Your task to perform on an android device: Go to Yahoo.com Image 0: 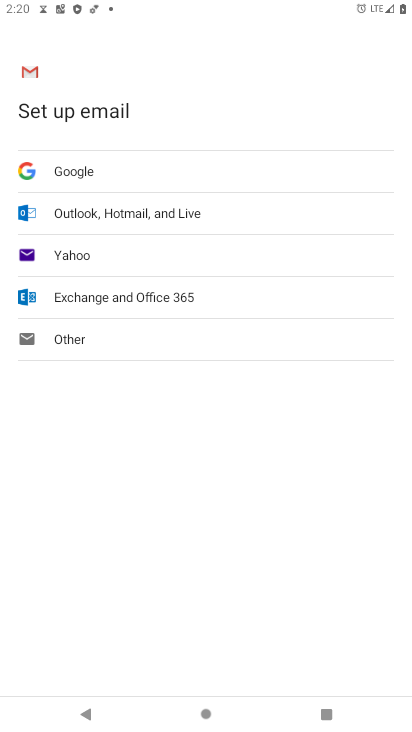
Step 0: press home button
Your task to perform on an android device: Go to Yahoo.com Image 1: 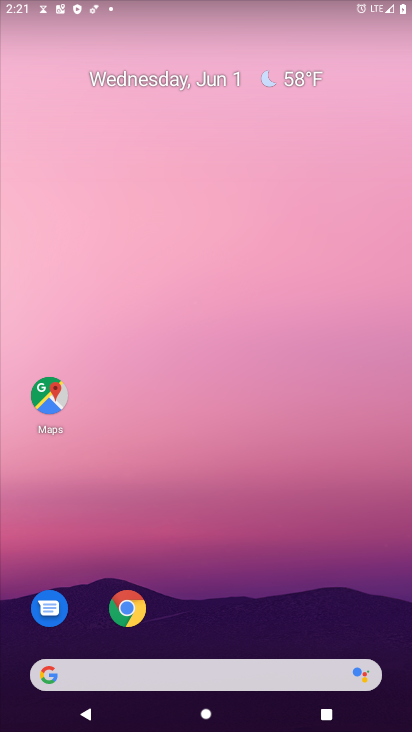
Step 1: click (116, 603)
Your task to perform on an android device: Go to Yahoo.com Image 2: 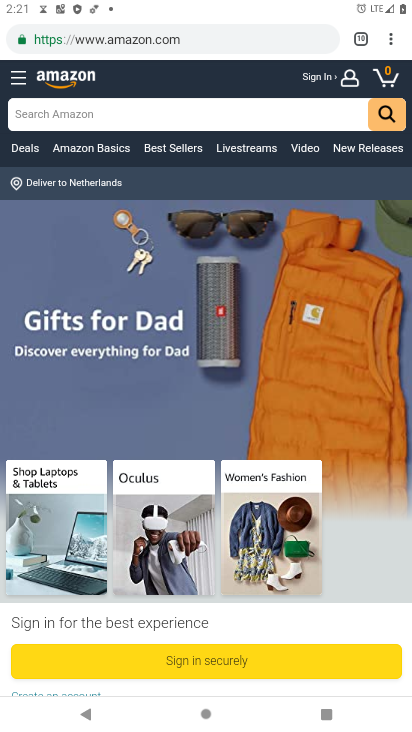
Step 2: click (372, 37)
Your task to perform on an android device: Go to Yahoo.com Image 3: 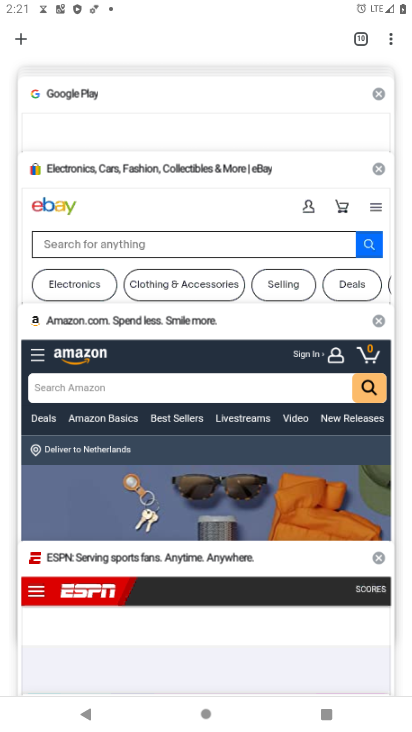
Step 3: drag from (278, 272) to (311, 564)
Your task to perform on an android device: Go to Yahoo.com Image 4: 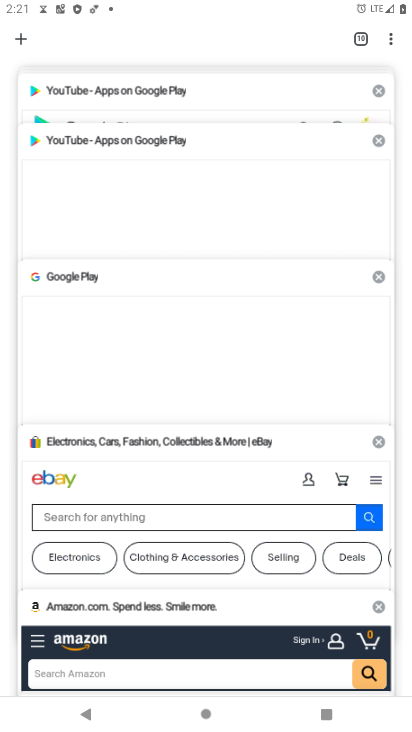
Step 4: drag from (158, 130) to (235, 485)
Your task to perform on an android device: Go to Yahoo.com Image 5: 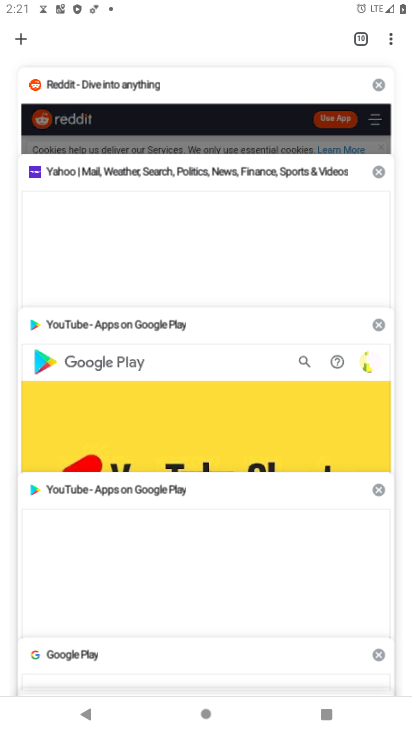
Step 5: click (199, 185)
Your task to perform on an android device: Go to Yahoo.com Image 6: 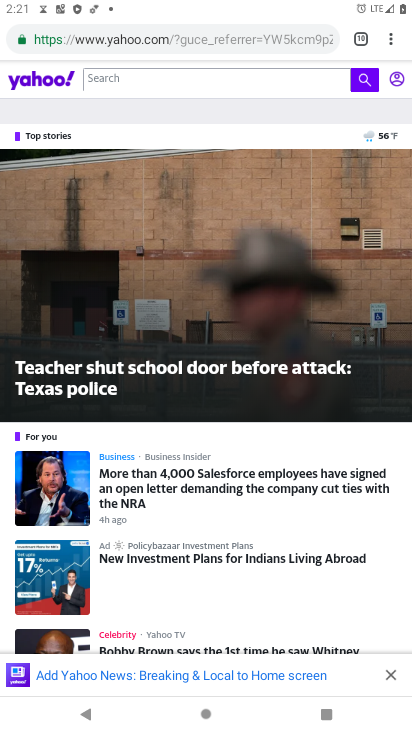
Step 6: task complete